Your task to perform on an android device: Open Google Image 0: 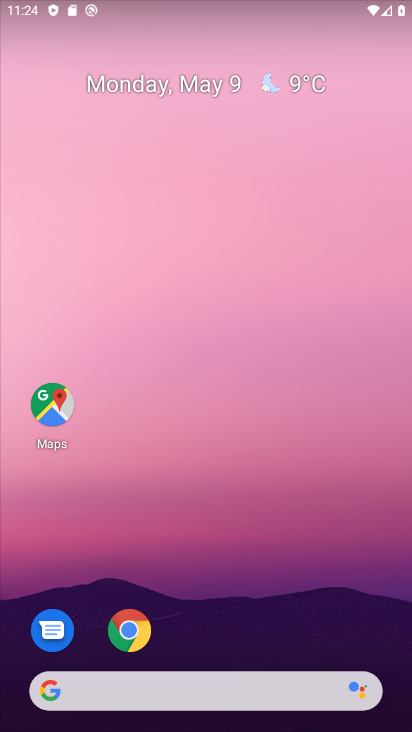
Step 0: click (190, 703)
Your task to perform on an android device: Open Google Image 1: 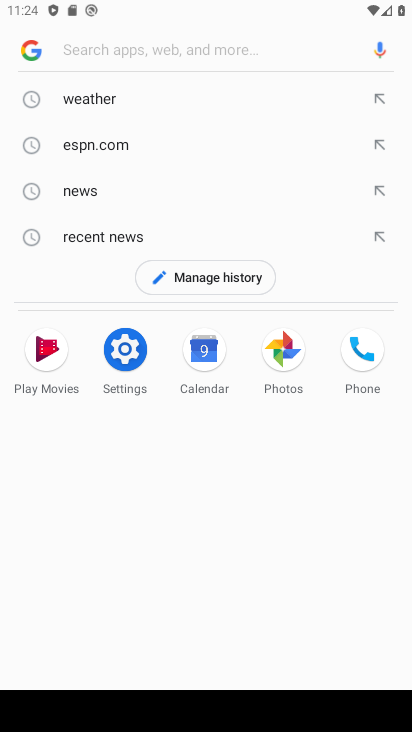
Step 1: task complete